Your task to perform on an android device: Go to Google maps Image 0: 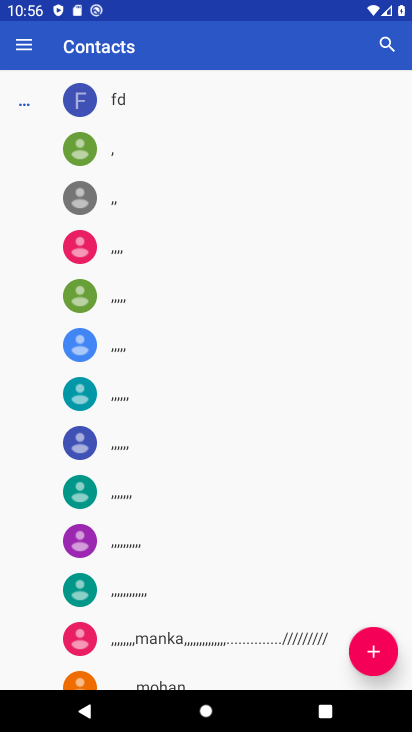
Step 0: press home button
Your task to perform on an android device: Go to Google maps Image 1: 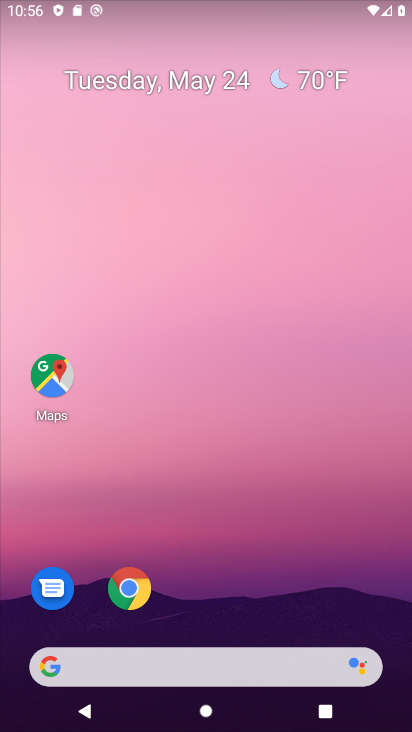
Step 1: click (53, 375)
Your task to perform on an android device: Go to Google maps Image 2: 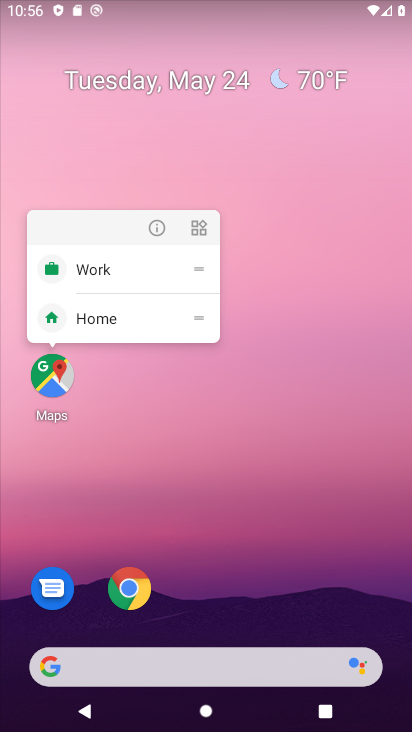
Step 2: click (53, 372)
Your task to perform on an android device: Go to Google maps Image 3: 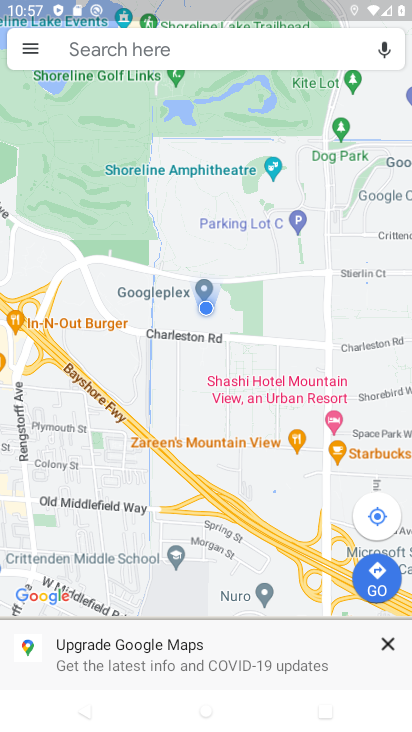
Step 3: task complete